Your task to perform on an android device: change the clock style Image 0: 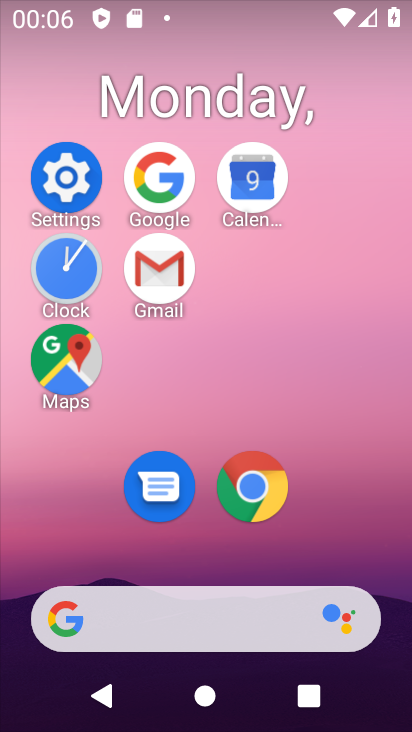
Step 0: click (82, 284)
Your task to perform on an android device: change the clock style Image 1: 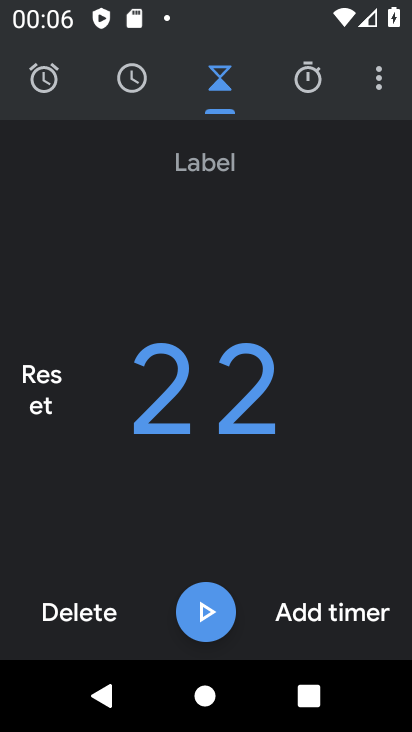
Step 1: click (380, 77)
Your task to perform on an android device: change the clock style Image 2: 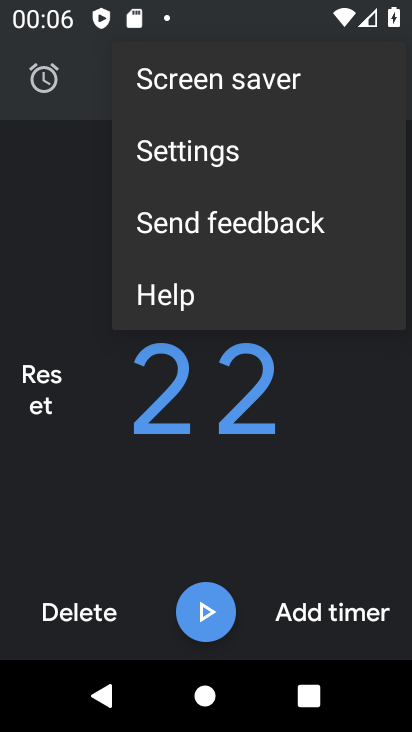
Step 2: click (284, 140)
Your task to perform on an android device: change the clock style Image 3: 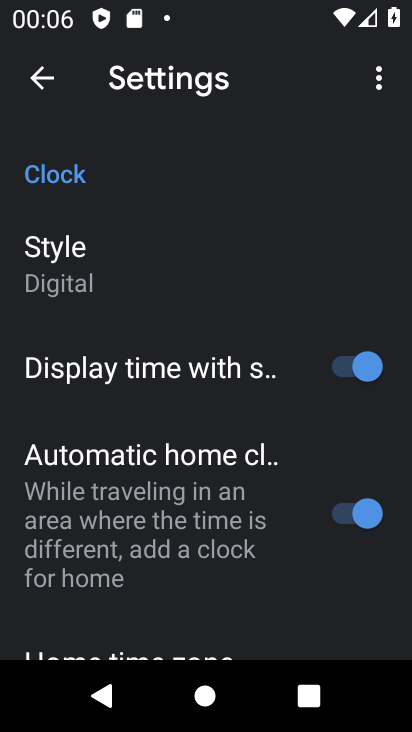
Step 3: click (179, 258)
Your task to perform on an android device: change the clock style Image 4: 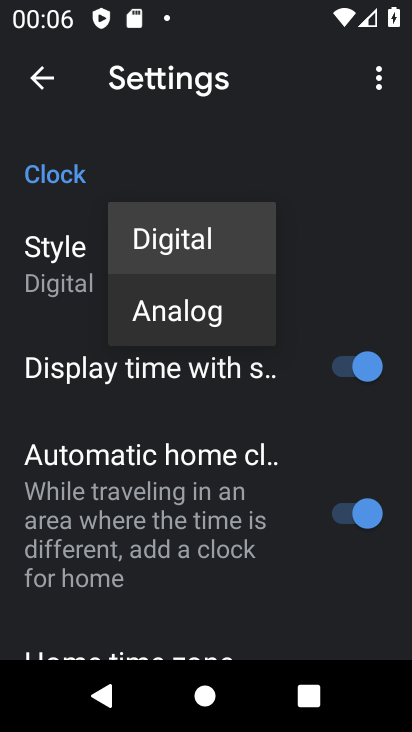
Step 4: click (190, 302)
Your task to perform on an android device: change the clock style Image 5: 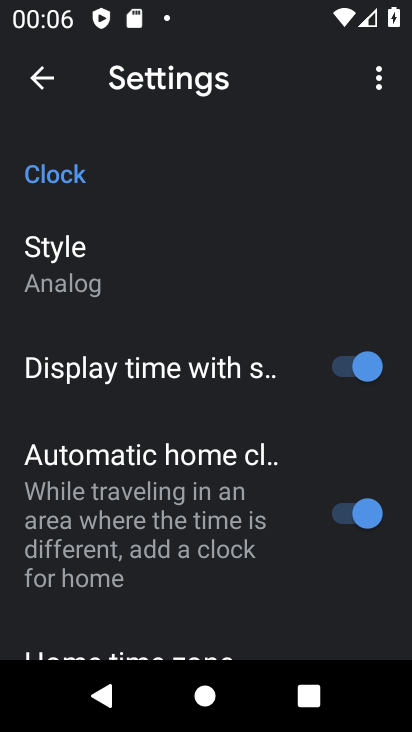
Step 5: task complete